Your task to perform on an android device: Open calendar and show me the third week of next month Image 0: 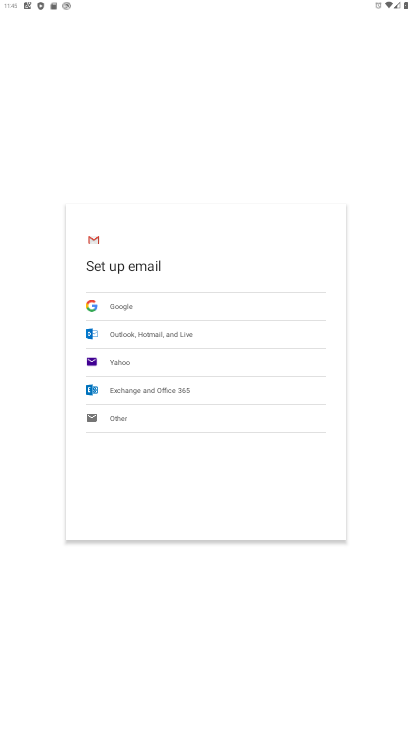
Step 0: press home button
Your task to perform on an android device: Open calendar and show me the third week of next month Image 1: 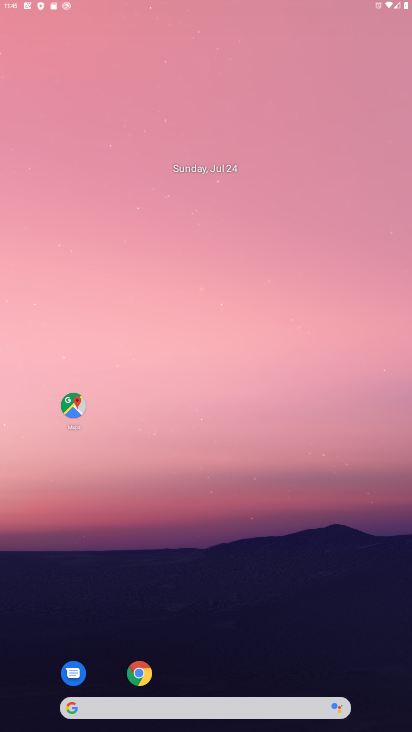
Step 1: click (195, 36)
Your task to perform on an android device: Open calendar and show me the third week of next month Image 2: 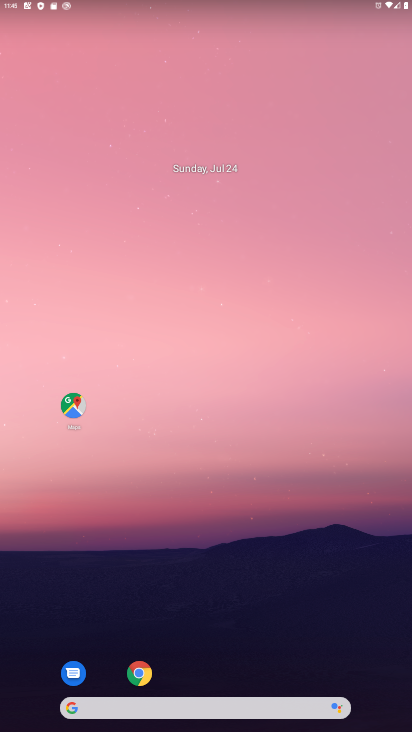
Step 2: drag from (346, 533) to (269, 0)
Your task to perform on an android device: Open calendar and show me the third week of next month Image 3: 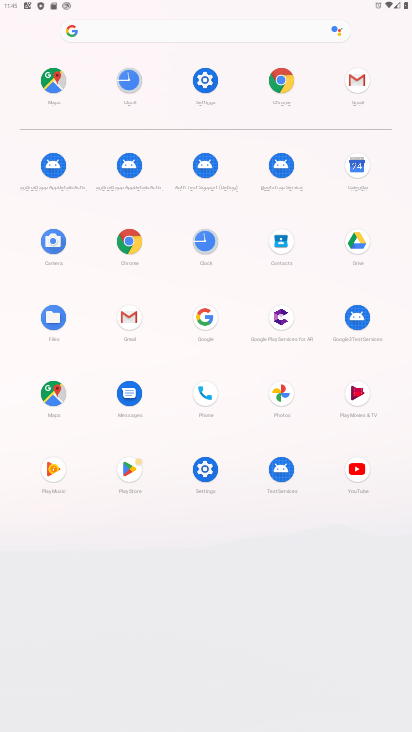
Step 3: click (361, 165)
Your task to perform on an android device: Open calendar and show me the third week of next month Image 4: 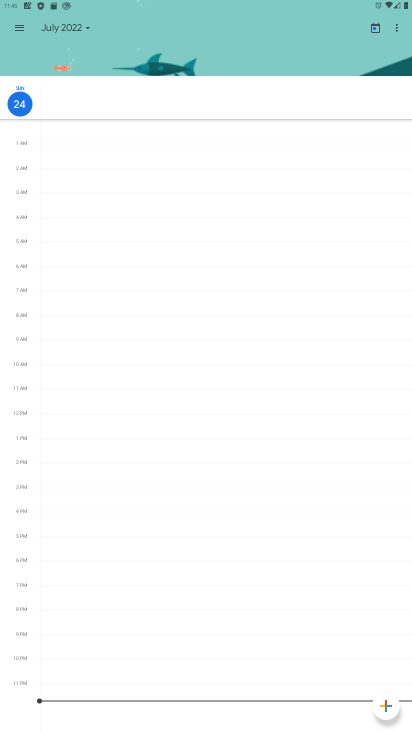
Step 4: click (76, 31)
Your task to perform on an android device: Open calendar and show me the third week of next month Image 5: 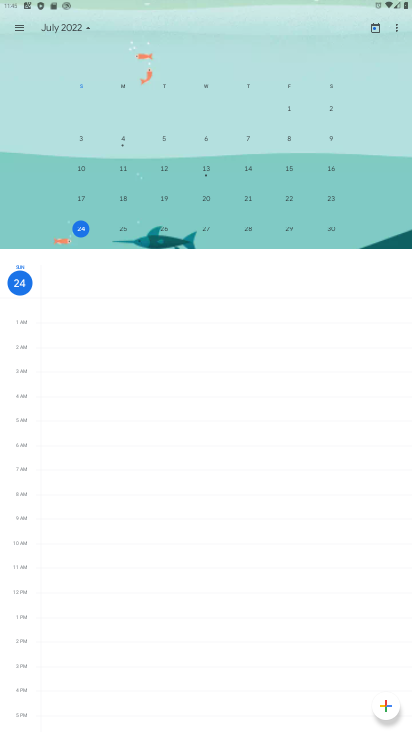
Step 5: drag from (98, 162) to (63, 166)
Your task to perform on an android device: Open calendar and show me the third week of next month Image 6: 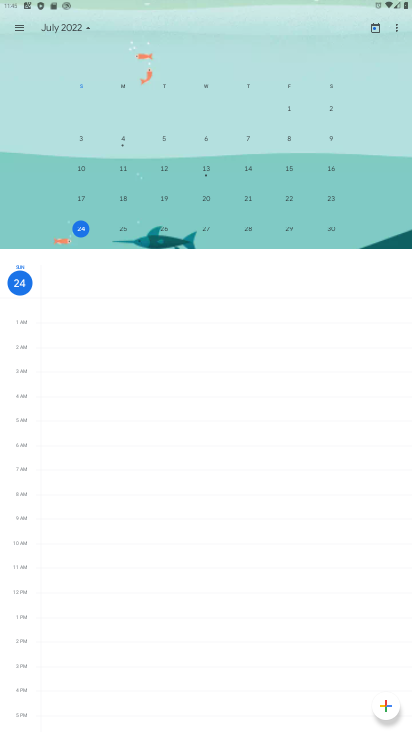
Step 6: drag from (323, 154) to (31, 142)
Your task to perform on an android device: Open calendar and show me the third week of next month Image 7: 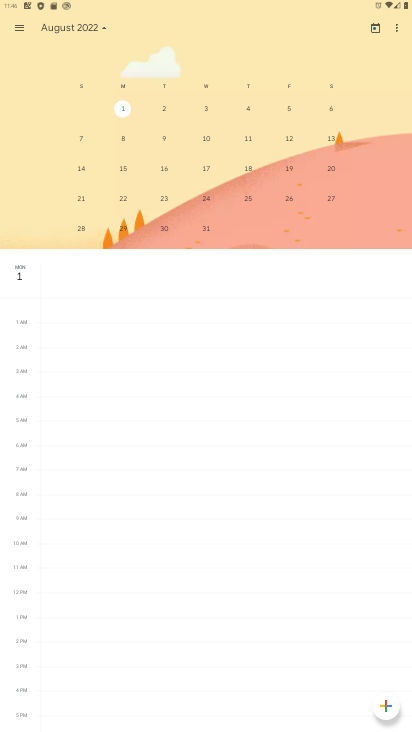
Step 7: click (250, 171)
Your task to perform on an android device: Open calendar and show me the third week of next month Image 8: 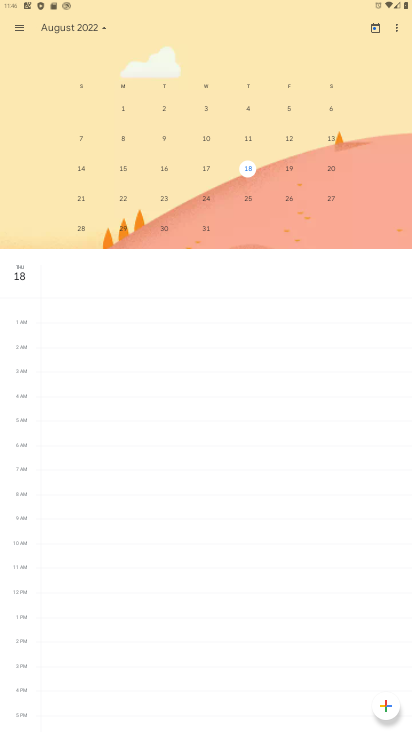
Step 8: click (16, 32)
Your task to perform on an android device: Open calendar and show me the third week of next month Image 9: 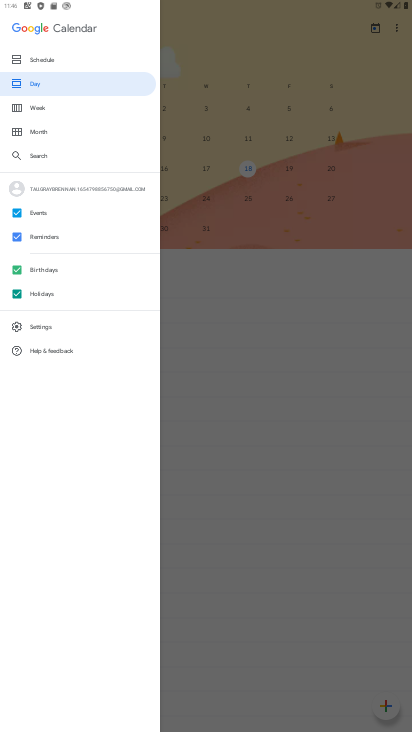
Step 9: click (47, 107)
Your task to perform on an android device: Open calendar and show me the third week of next month Image 10: 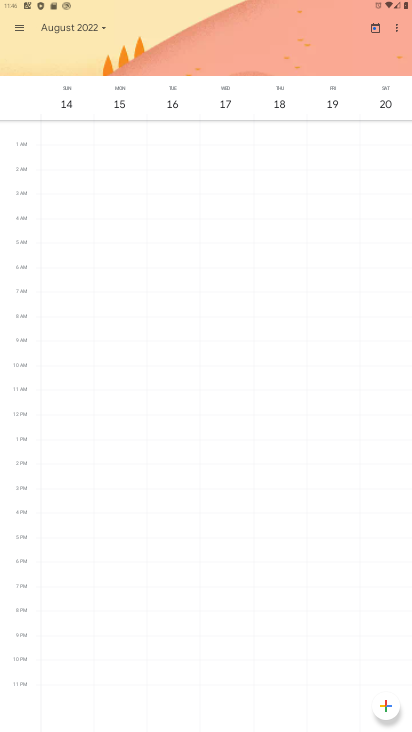
Step 10: task complete